Your task to perform on an android device: Open wifi settings Image 0: 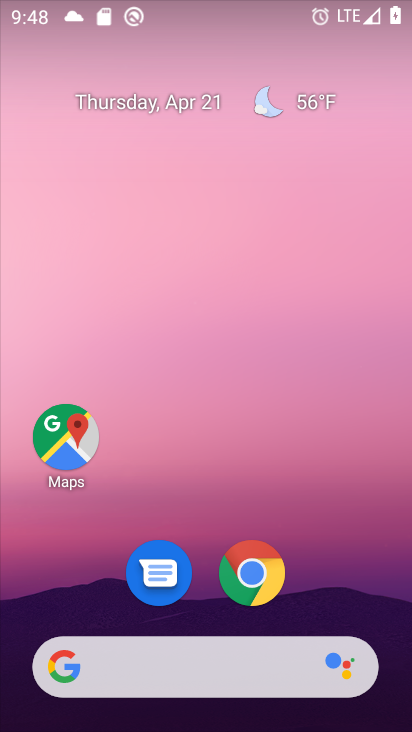
Step 0: drag from (201, 526) to (236, 66)
Your task to perform on an android device: Open wifi settings Image 1: 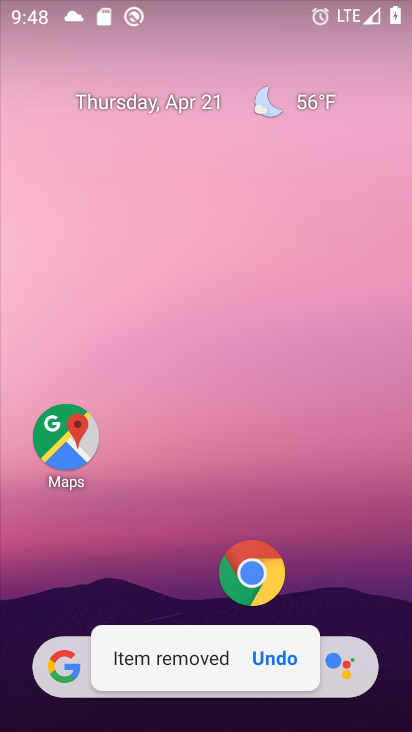
Step 1: drag from (193, 560) to (230, 28)
Your task to perform on an android device: Open wifi settings Image 2: 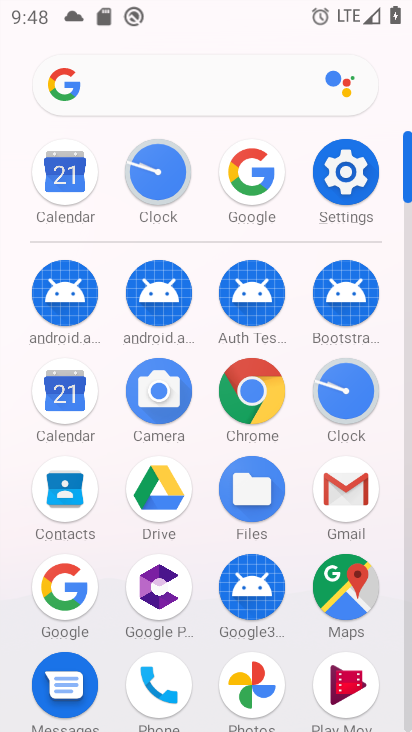
Step 2: click (347, 167)
Your task to perform on an android device: Open wifi settings Image 3: 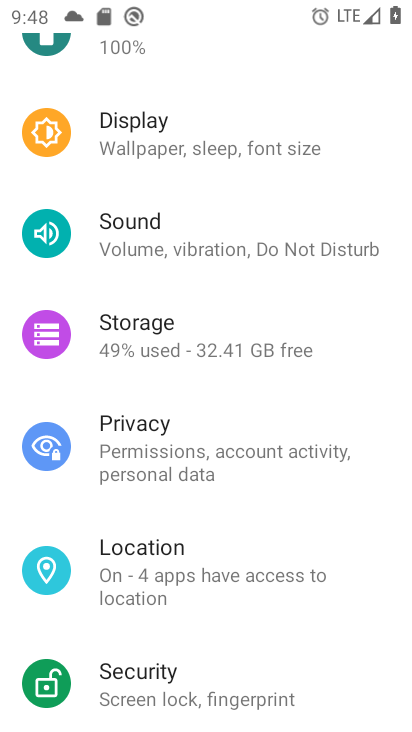
Step 3: drag from (176, 193) to (197, 295)
Your task to perform on an android device: Open wifi settings Image 4: 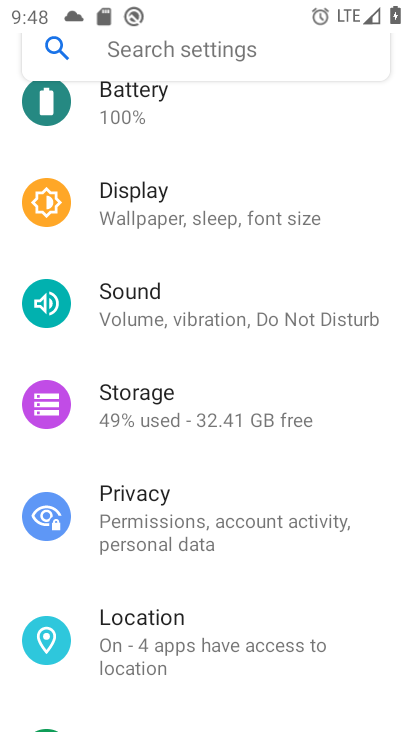
Step 4: drag from (242, 149) to (227, 370)
Your task to perform on an android device: Open wifi settings Image 5: 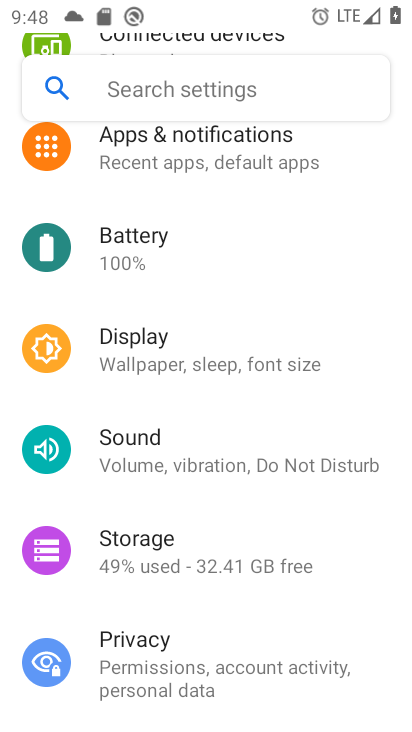
Step 5: drag from (181, 214) to (190, 410)
Your task to perform on an android device: Open wifi settings Image 6: 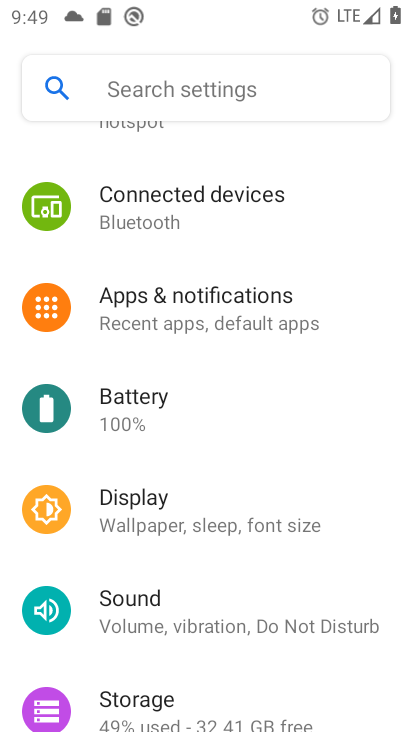
Step 6: drag from (228, 251) to (266, 425)
Your task to perform on an android device: Open wifi settings Image 7: 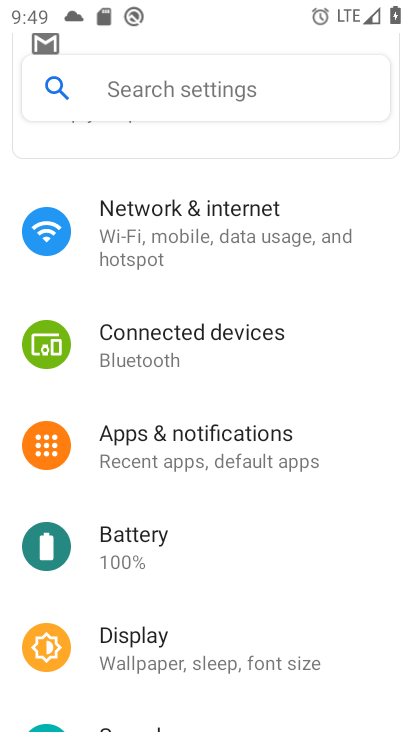
Step 7: click (237, 219)
Your task to perform on an android device: Open wifi settings Image 8: 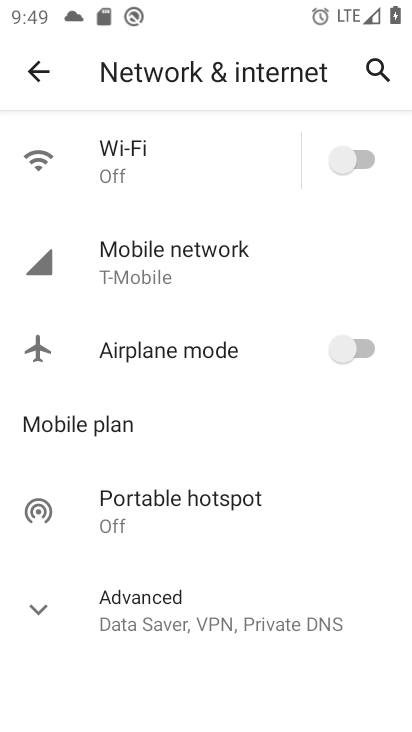
Step 8: click (118, 153)
Your task to perform on an android device: Open wifi settings Image 9: 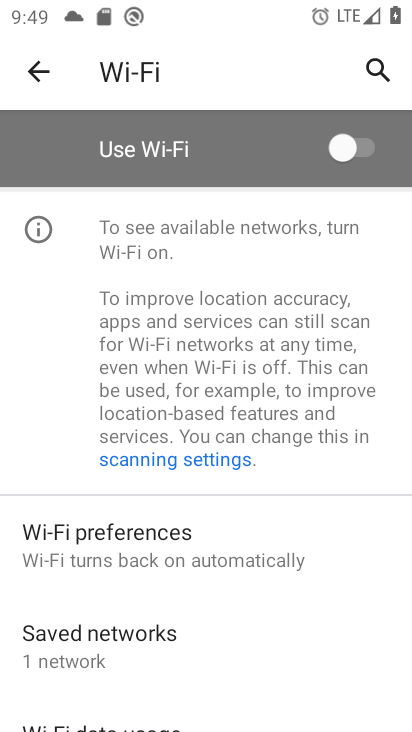
Step 9: task complete